Your task to perform on an android device: turn on the 24-hour format for clock Image 0: 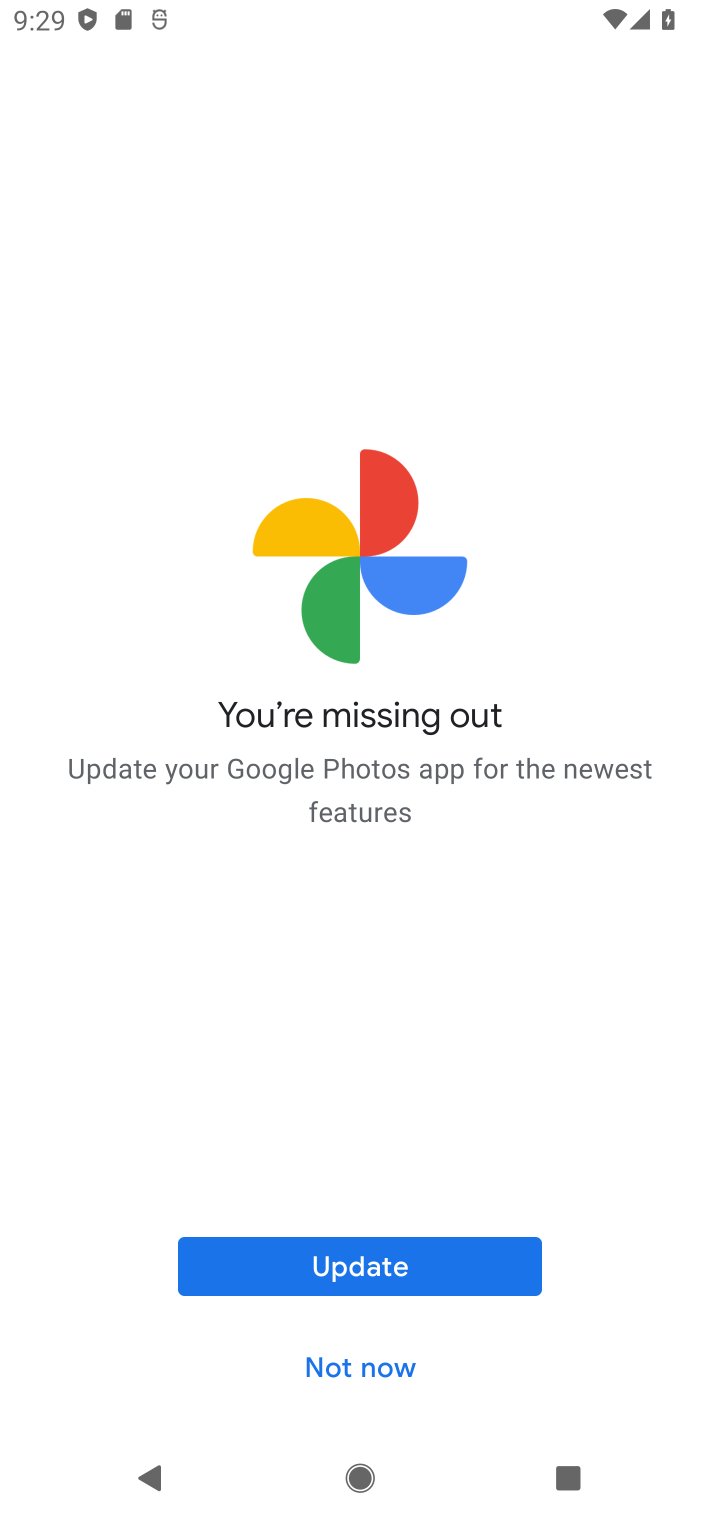
Step 0: press home button
Your task to perform on an android device: turn on the 24-hour format for clock Image 1: 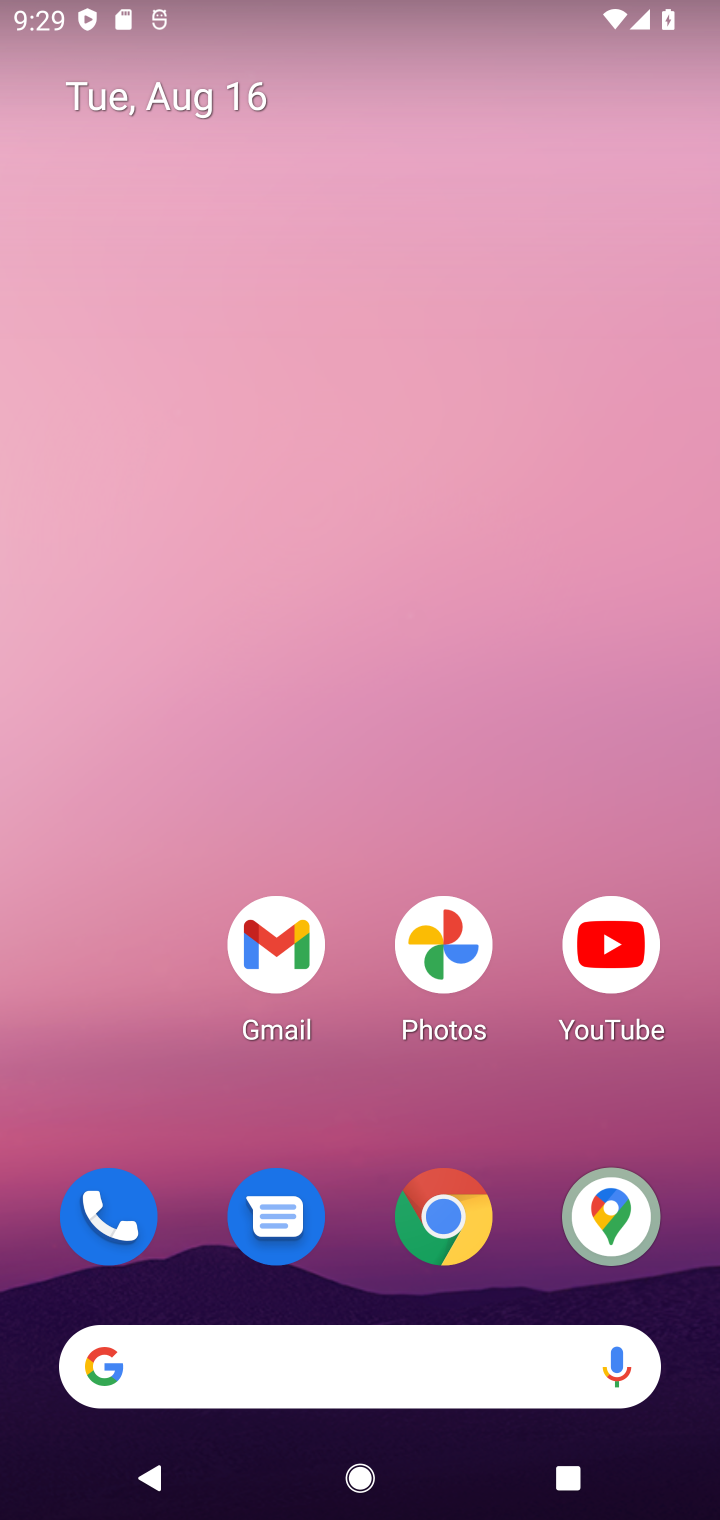
Step 1: drag from (360, 1280) to (316, 236)
Your task to perform on an android device: turn on the 24-hour format for clock Image 2: 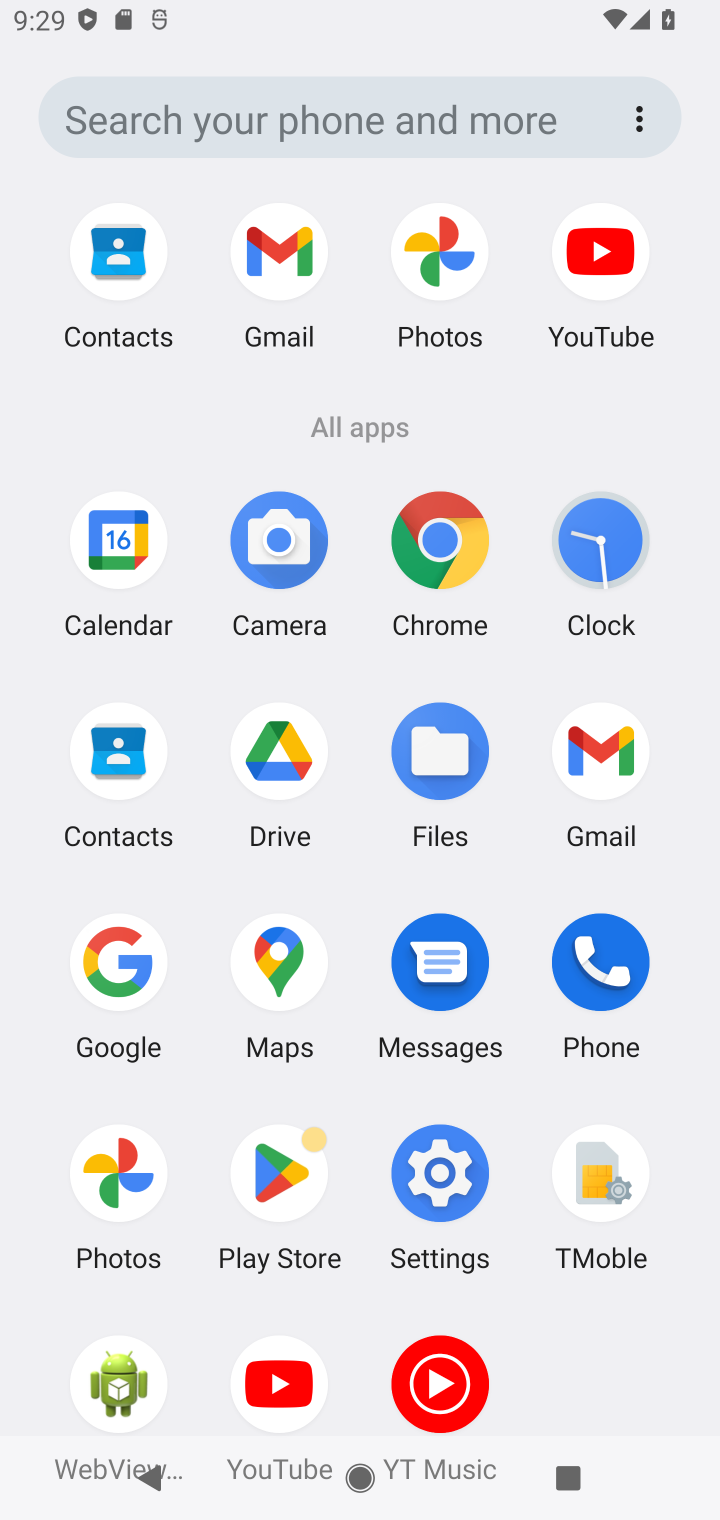
Step 2: click (601, 548)
Your task to perform on an android device: turn on the 24-hour format for clock Image 3: 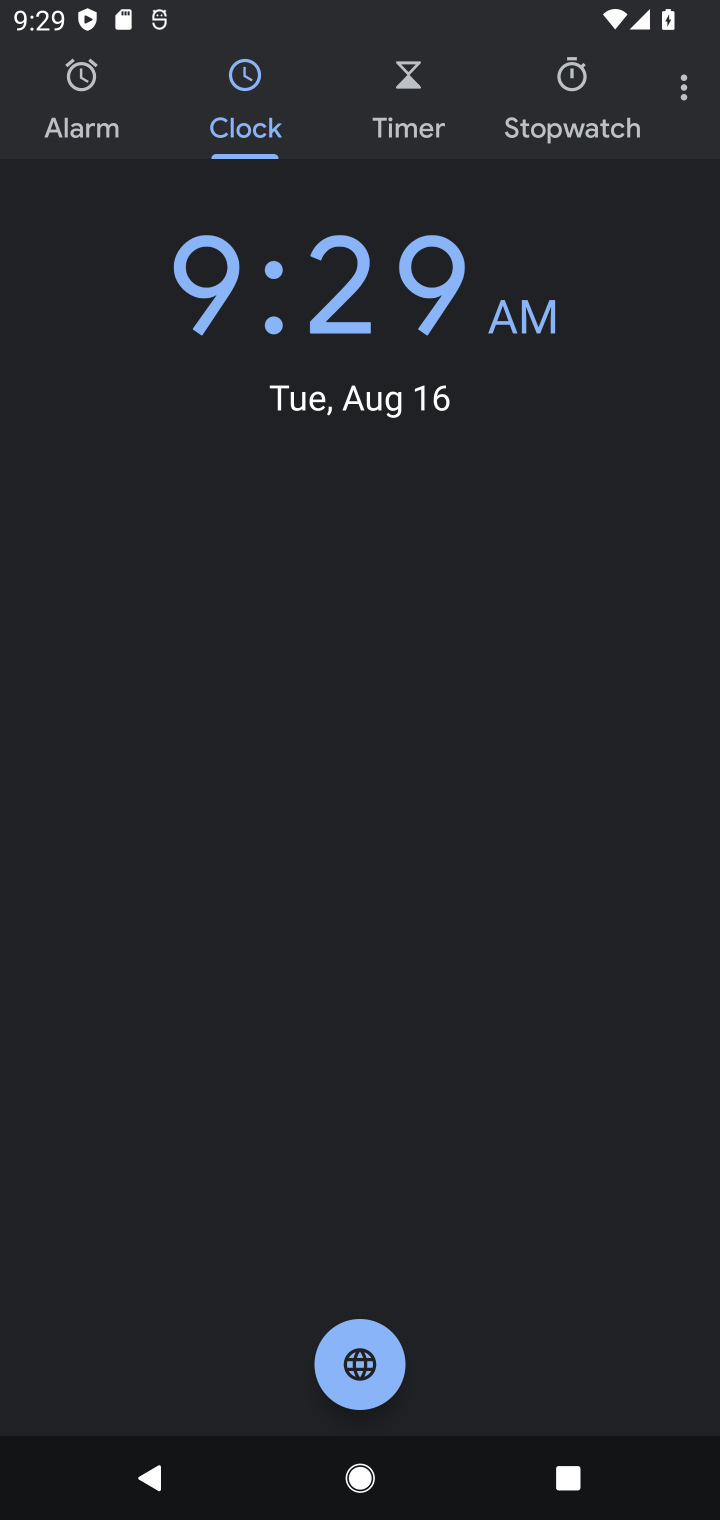
Step 3: click (683, 91)
Your task to perform on an android device: turn on the 24-hour format for clock Image 4: 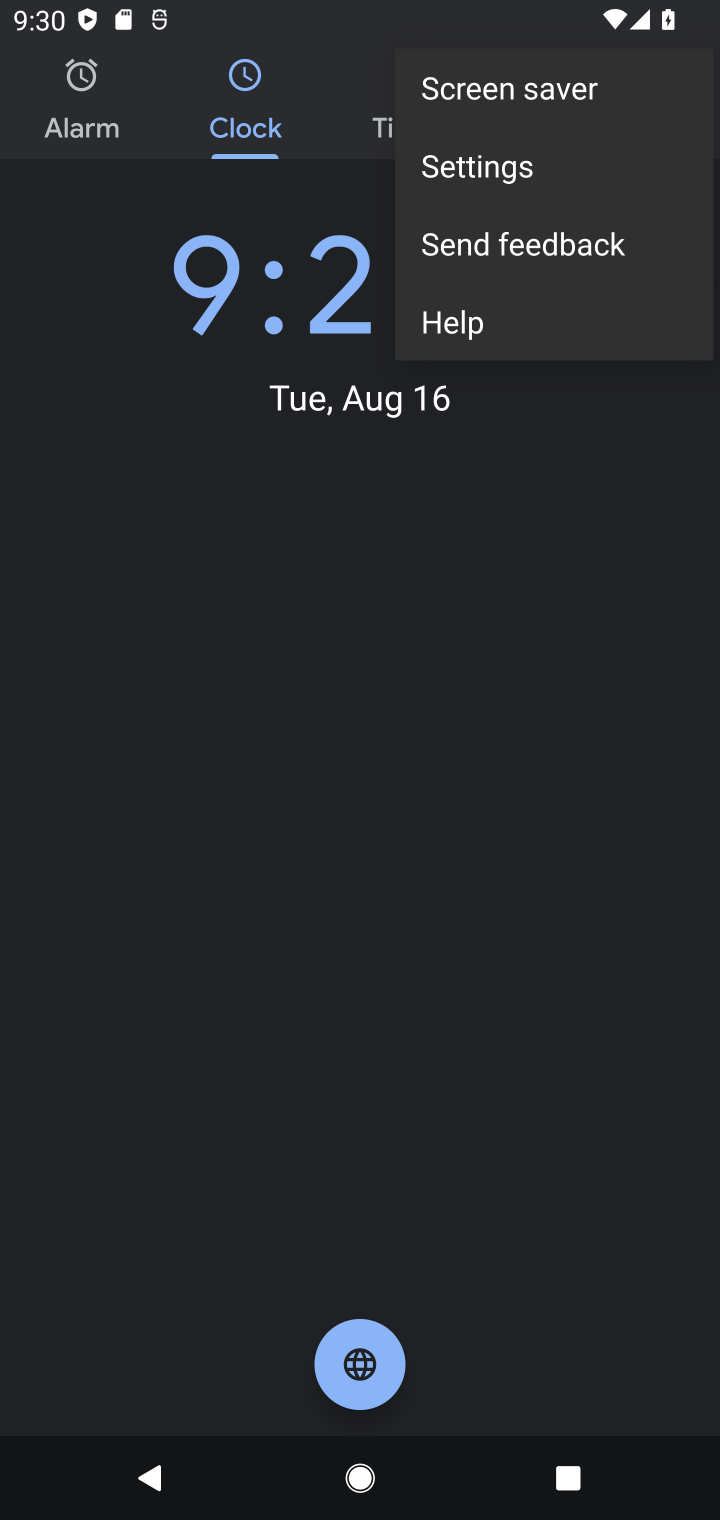
Step 4: click (482, 173)
Your task to perform on an android device: turn on the 24-hour format for clock Image 5: 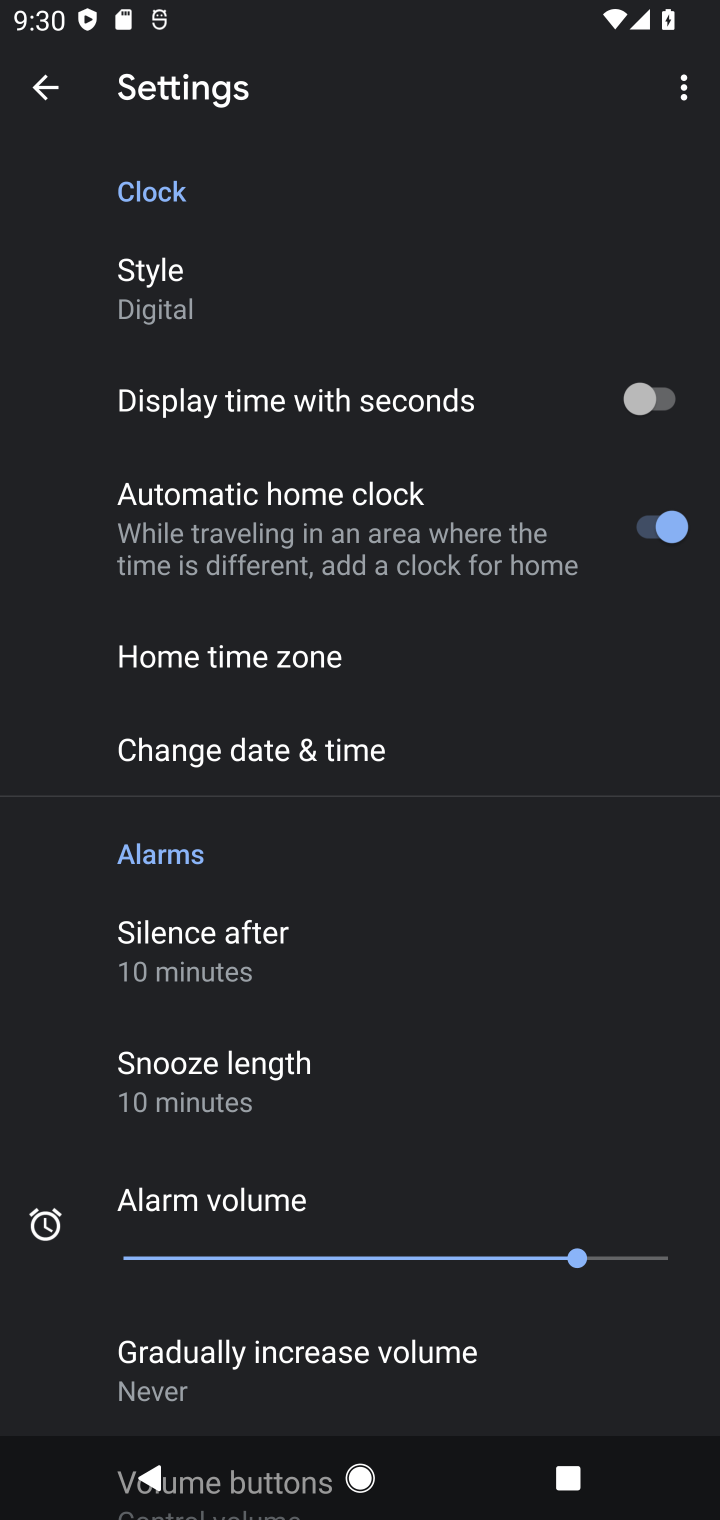
Step 5: click (222, 747)
Your task to perform on an android device: turn on the 24-hour format for clock Image 6: 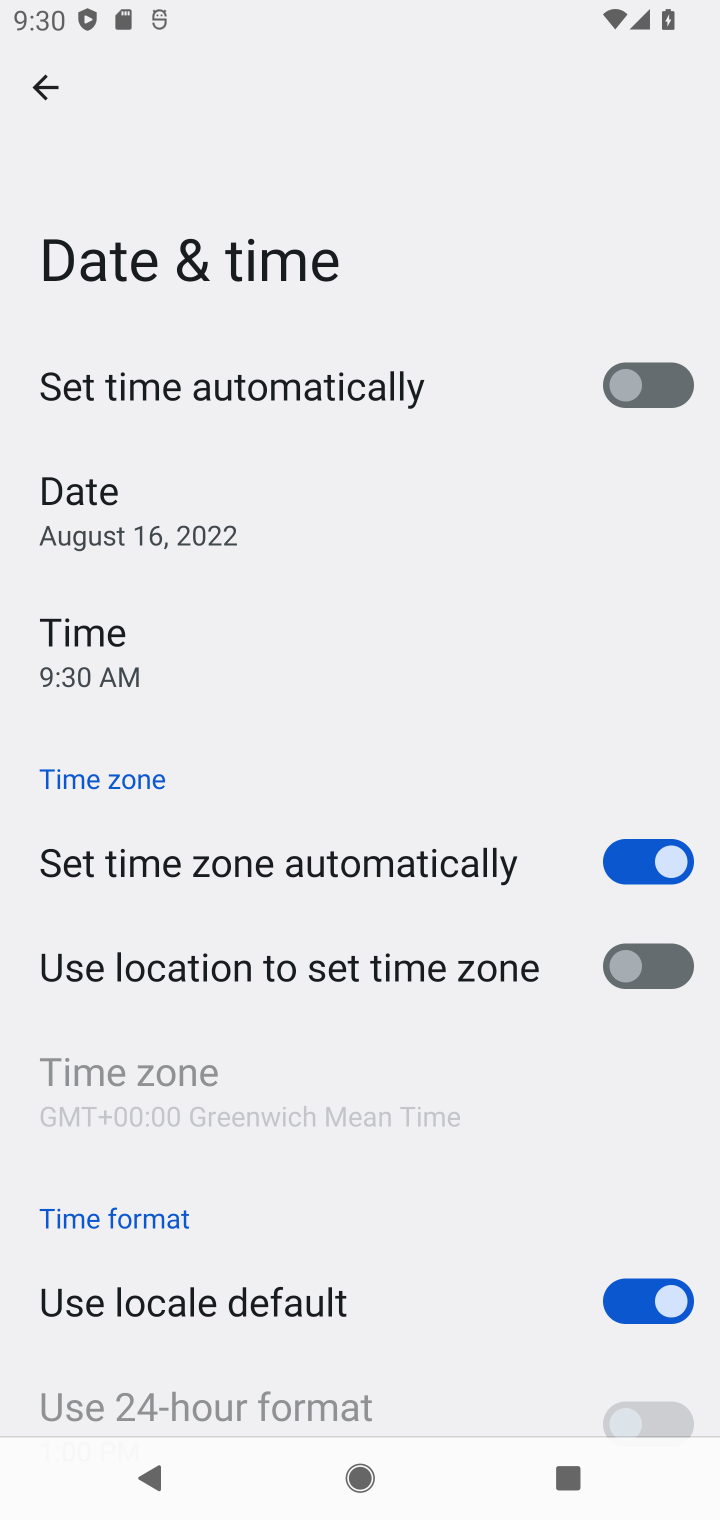
Step 6: click (628, 1306)
Your task to perform on an android device: turn on the 24-hour format for clock Image 7: 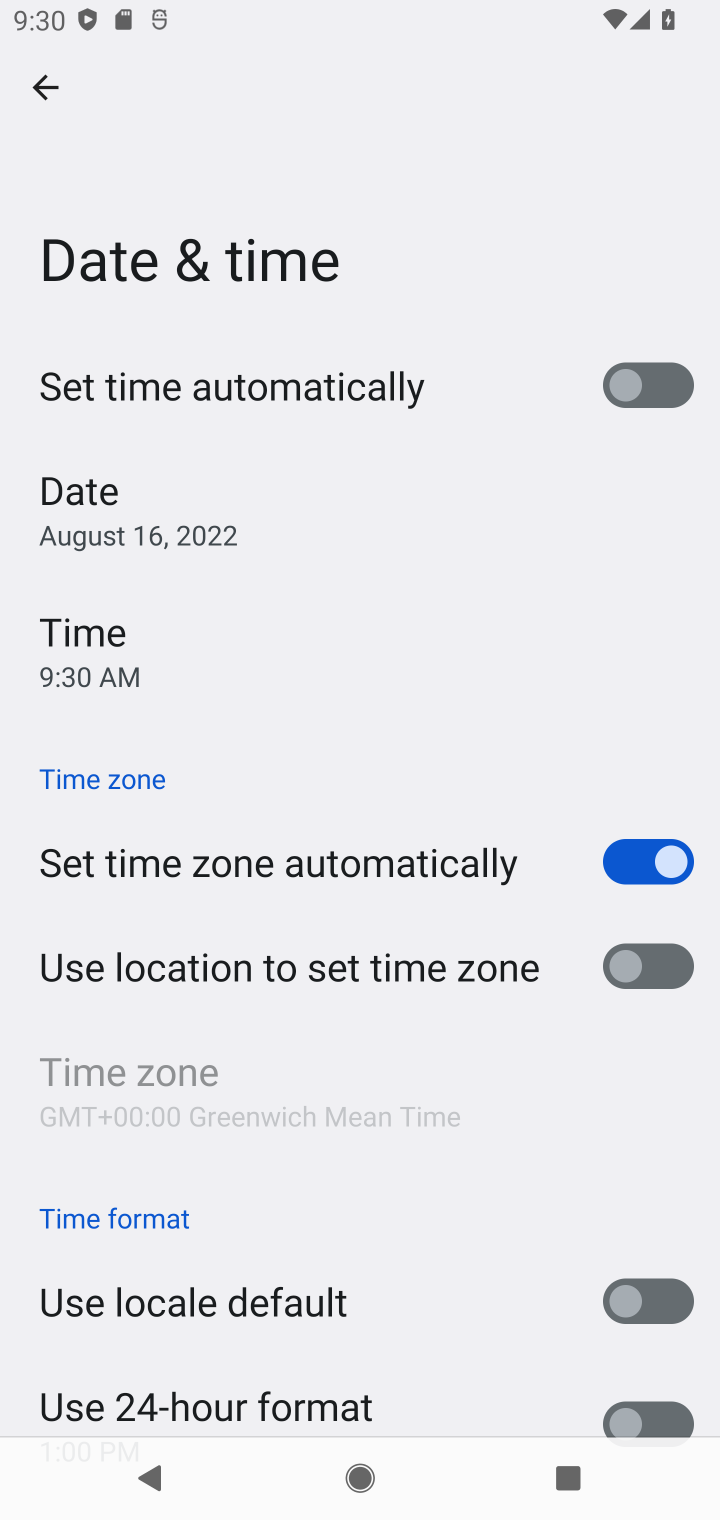
Step 7: click (675, 1421)
Your task to perform on an android device: turn on the 24-hour format for clock Image 8: 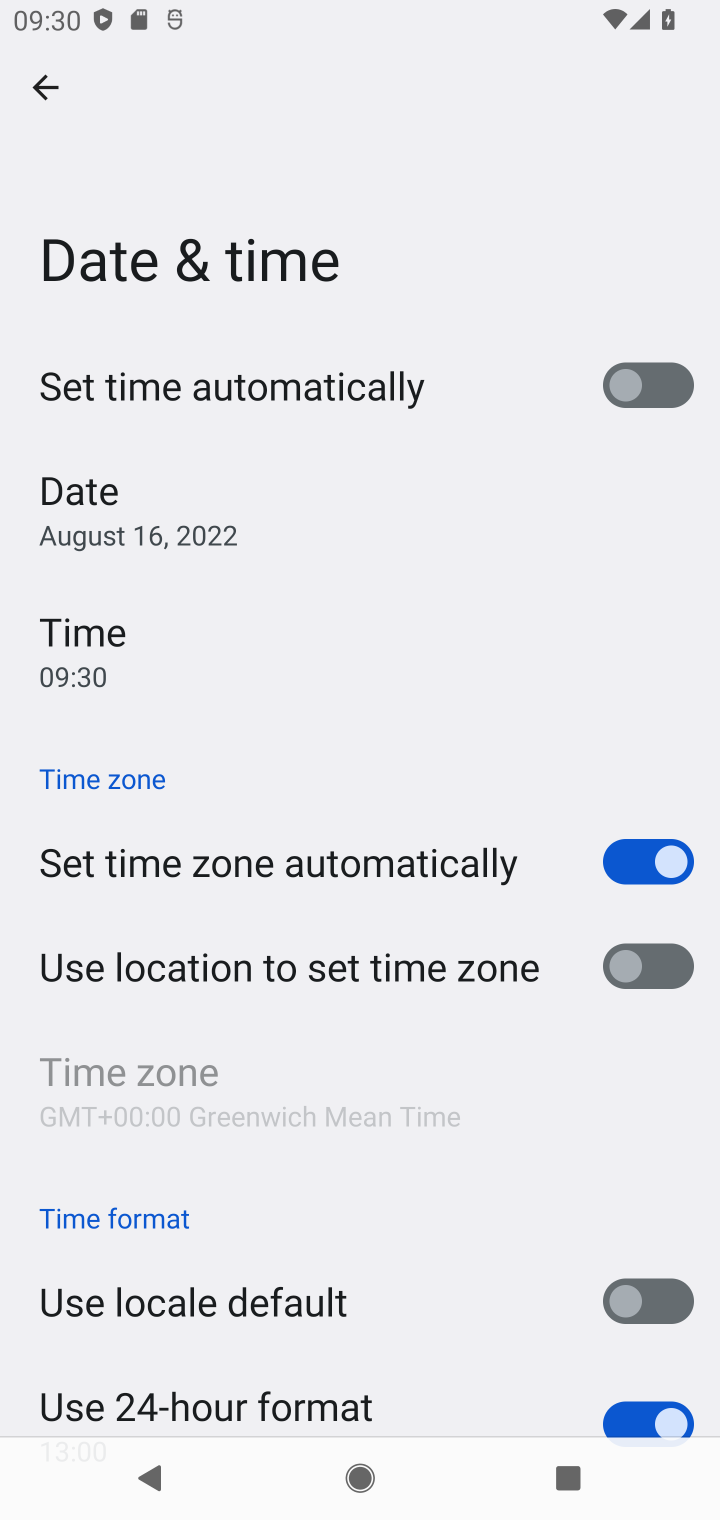
Step 8: task complete